Your task to perform on an android device: change the clock style Image 0: 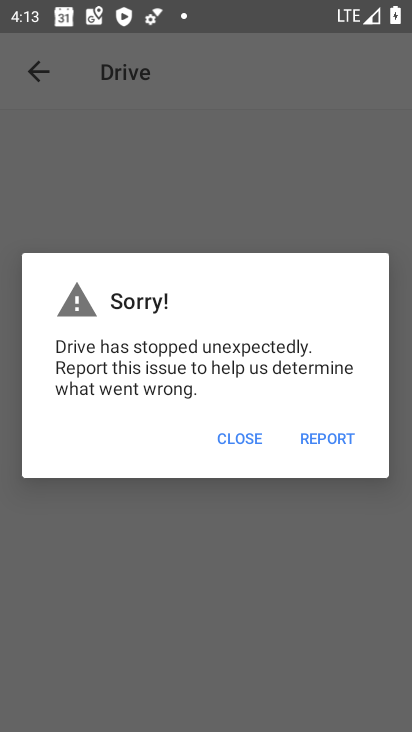
Step 0: press home button
Your task to perform on an android device: change the clock style Image 1: 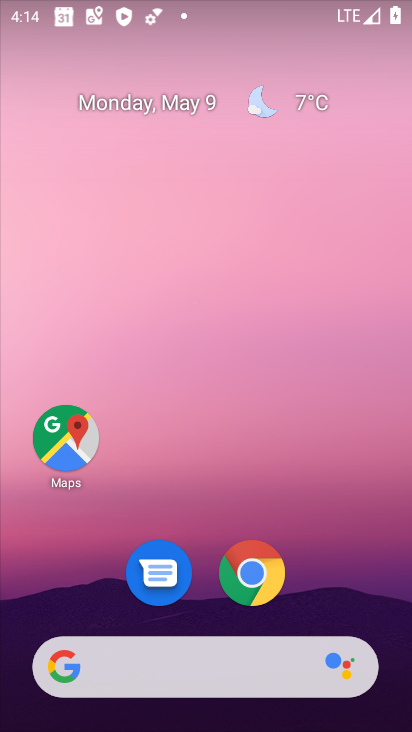
Step 1: drag from (349, 566) to (403, 1)
Your task to perform on an android device: change the clock style Image 2: 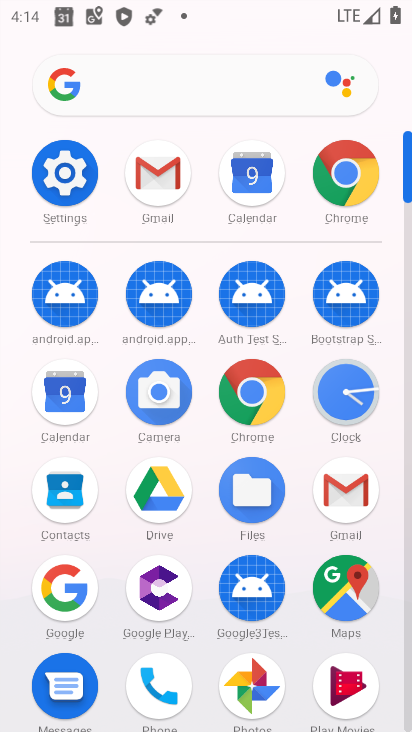
Step 2: click (348, 397)
Your task to perform on an android device: change the clock style Image 3: 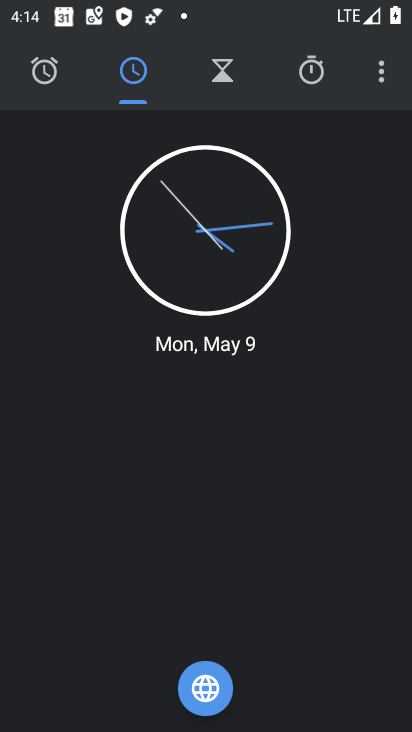
Step 3: click (381, 70)
Your task to perform on an android device: change the clock style Image 4: 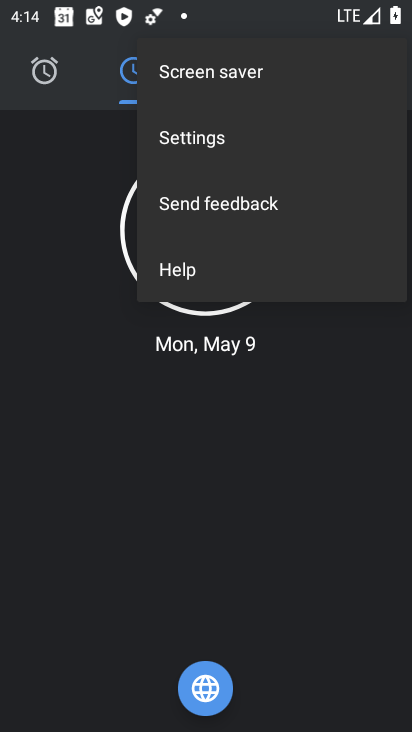
Step 4: click (197, 150)
Your task to perform on an android device: change the clock style Image 5: 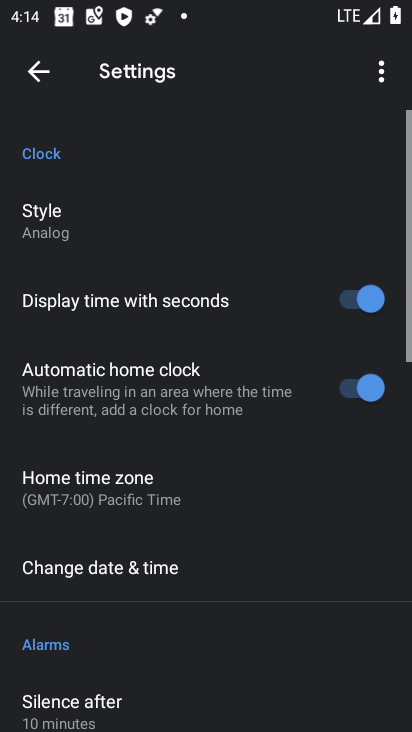
Step 5: click (43, 229)
Your task to perform on an android device: change the clock style Image 6: 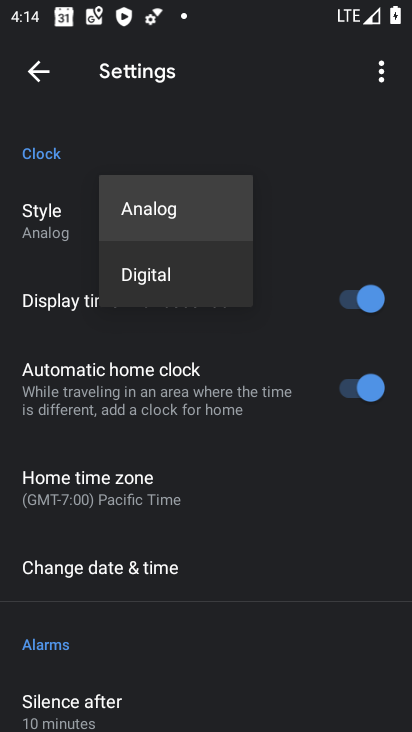
Step 6: click (120, 275)
Your task to perform on an android device: change the clock style Image 7: 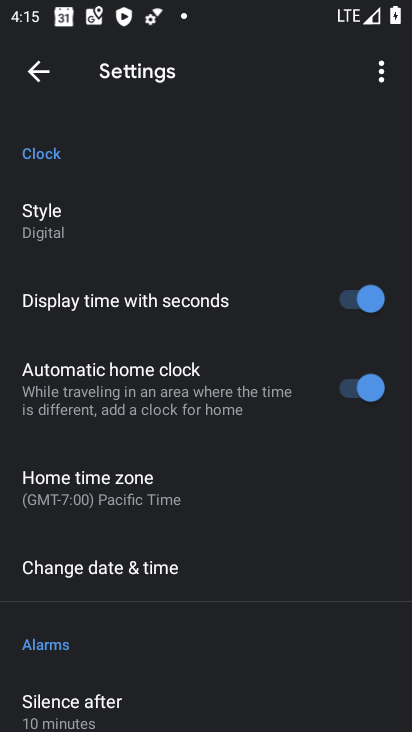
Step 7: task complete